Your task to perform on an android device: add a contact Image 0: 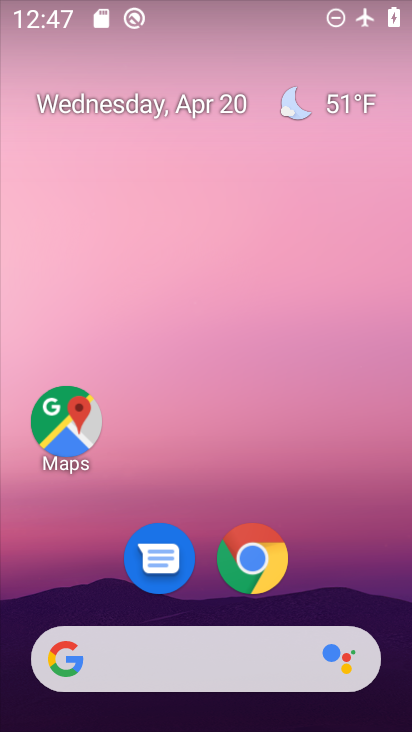
Step 0: drag from (369, 619) to (285, 205)
Your task to perform on an android device: add a contact Image 1: 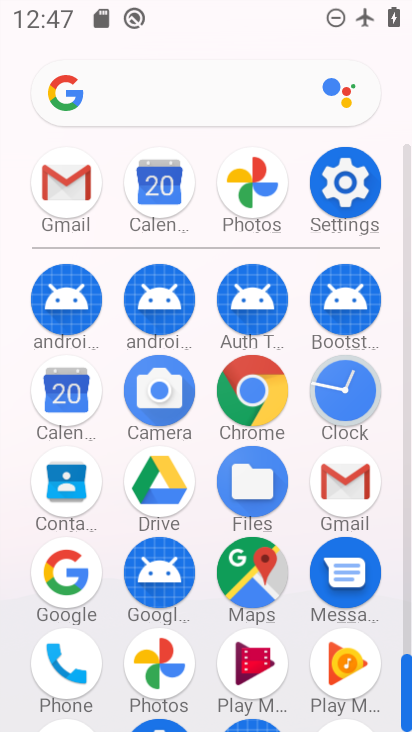
Step 1: click (408, 646)
Your task to perform on an android device: add a contact Image 2: 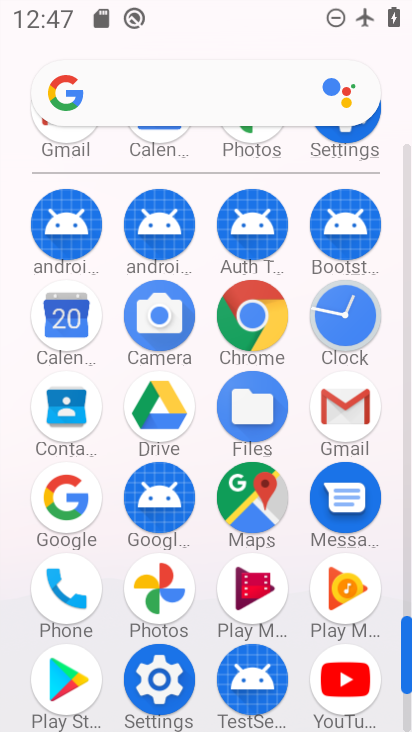
Step 2: click (60, 411)
Your task to perform on an android device: add a contact Image 3: 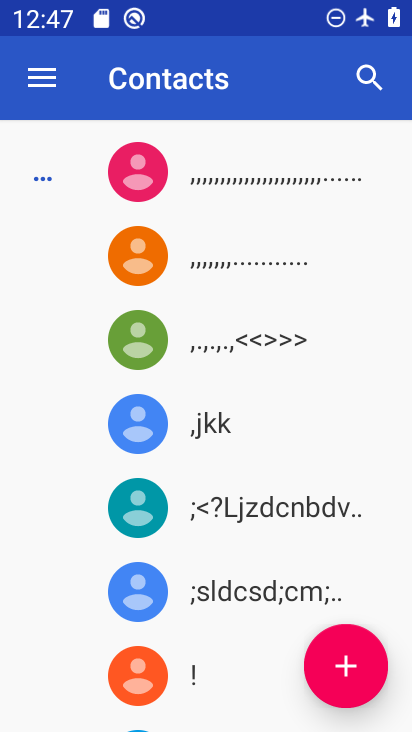
Step 3: click (344, 665)
Your task to perform on an android device: add a contact Image 4: 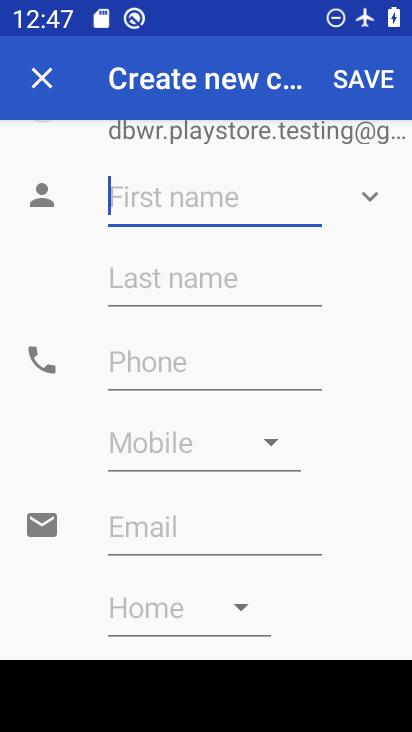
Step 4: type "sgdjjkgdf"
Your task to perform on an android device: add a contact Image 5: 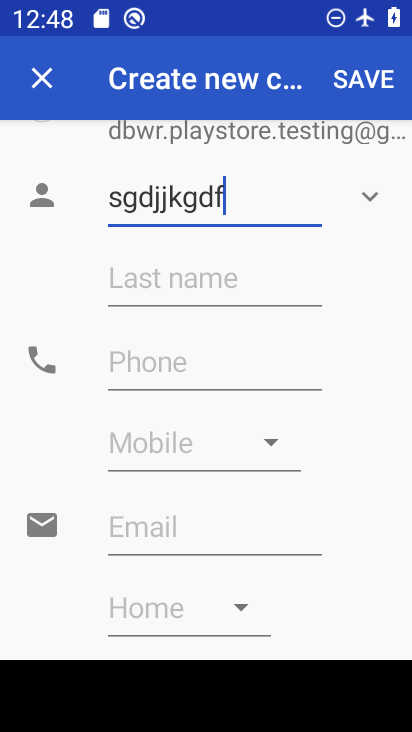
Step 5: click (167, 370)
Your task to perform on an android device: add a contact Image 6: 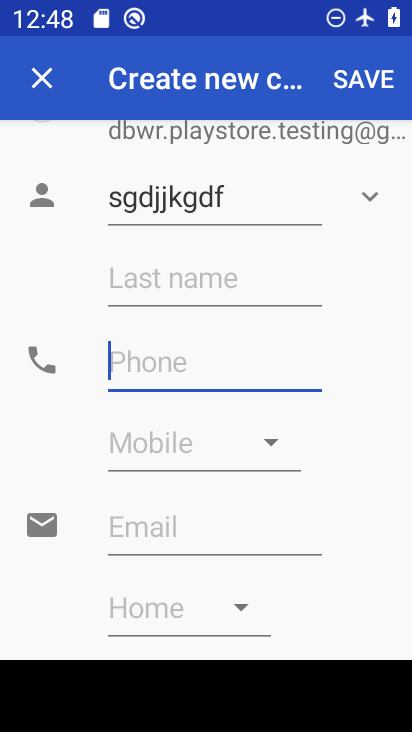
Step 6: type "0128906543"
Your task to perform on an android device: add a contact Image 7: 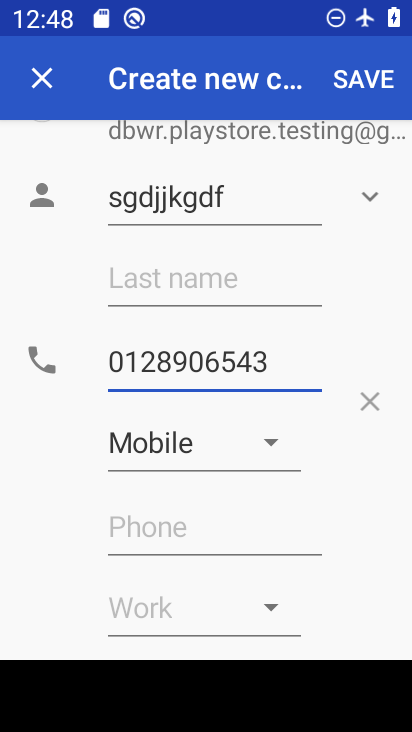
Step 7: click (265, 445)
Your task to perform on an android device: add a contact Image 8: 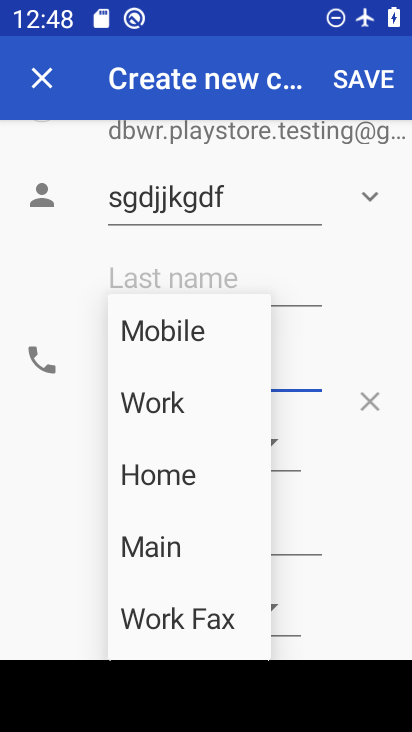
Step 8: click (153, 400)
Your task to perform on an android device: add a contact Image 9: 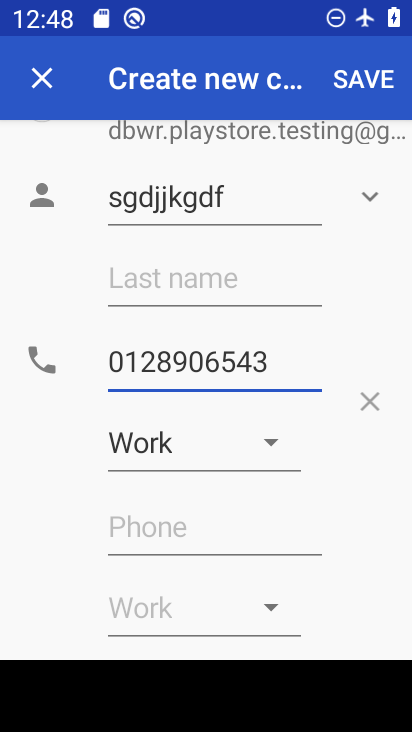
Step 9: click (356, 79)
Your task to perform on an android device: add a contact Image 10: 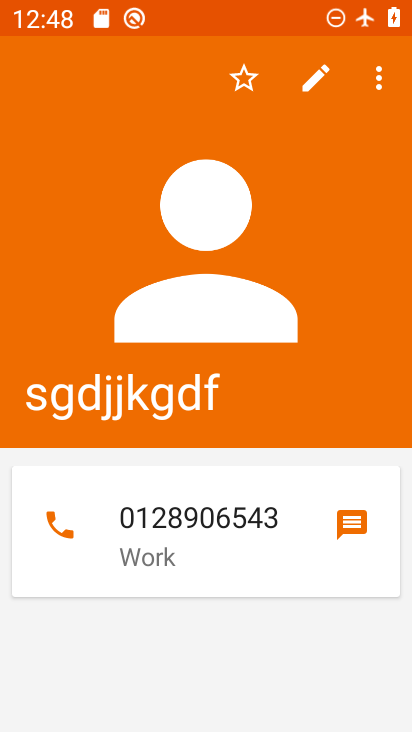
Step 10: task complete